Your task to perform on an android device: open chrome privacy settings Image 0: 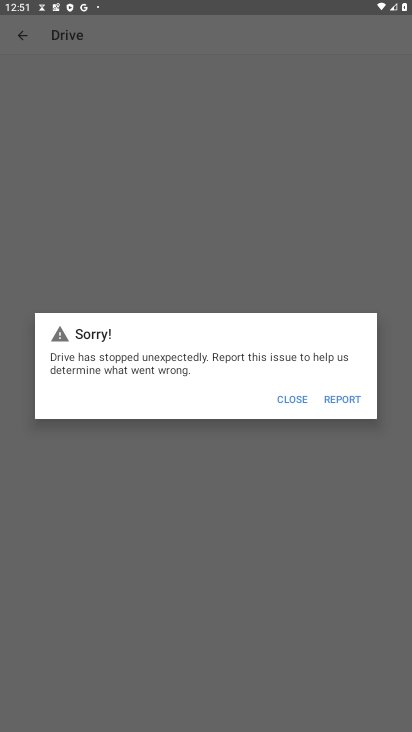
Step 0: press home button
Your task to perform on an android device: open chrome privacy settings Image 1: 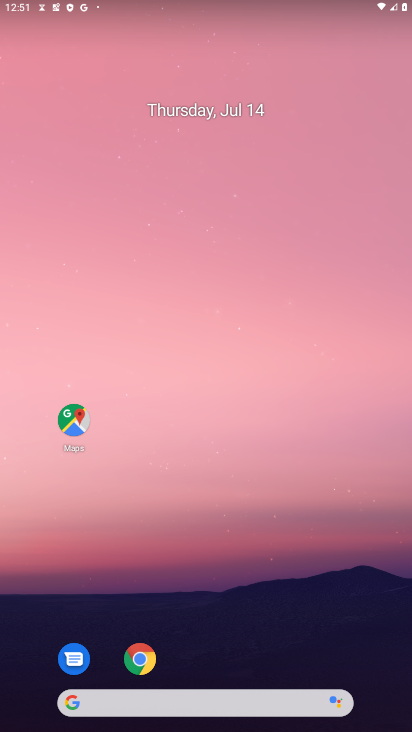
Step 1: click (132, 664)
Your task to perform on an android device: open chrome privacy settings Image 2: 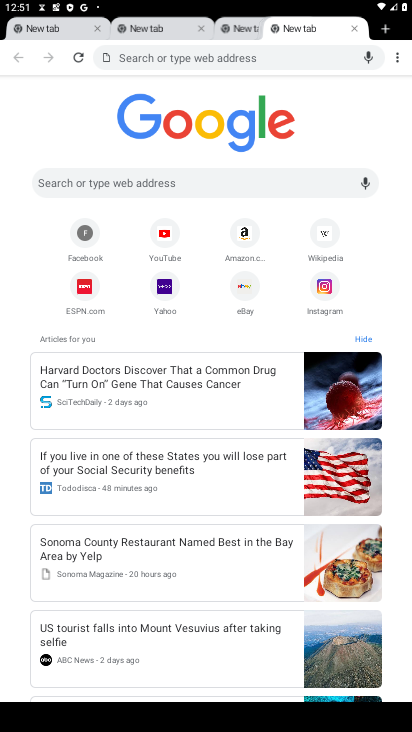
Step 2: click (393, 52)
Your task to perform on an android device: open chrome privacy settings Image 3: 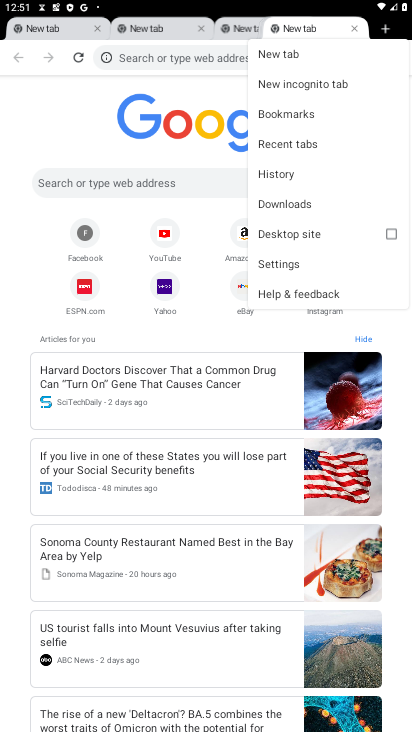
Step 3: click (296, 263)
Your task to perform on an android device: open chrome privacy settings Image 4: 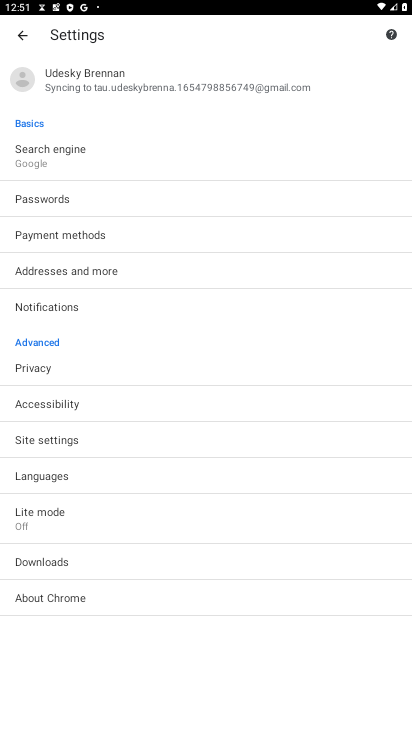
Step 4: click (47, 371)
Your task to perform on an android device: open chrome privacy settings Image 5: 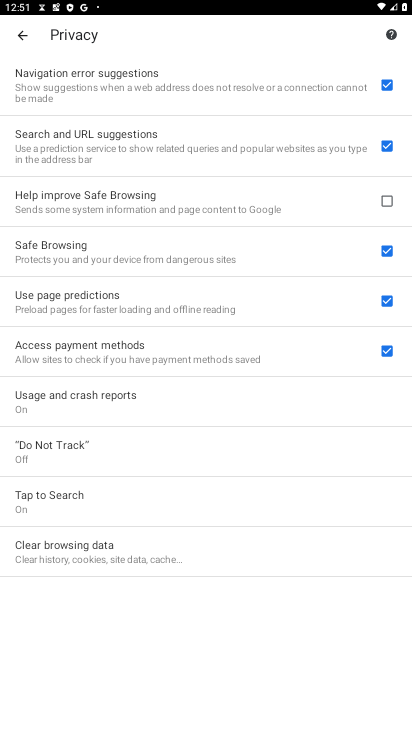
Step 5: task complete